Your task to perform on an android device: Check the weather Image 0: 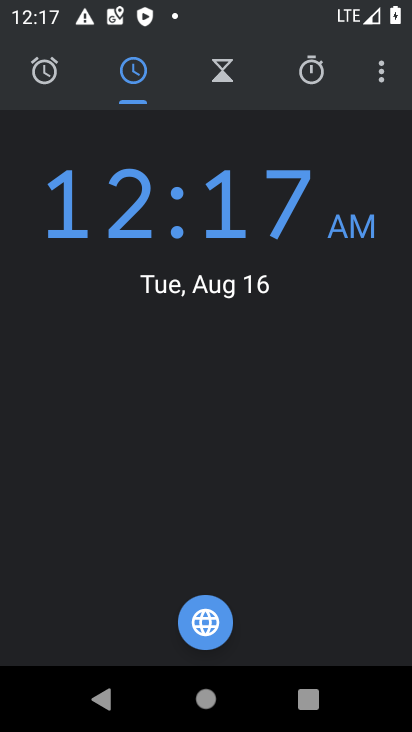
Step 0: press home button
Your task to perform on an android device: Check the weather Image 1: 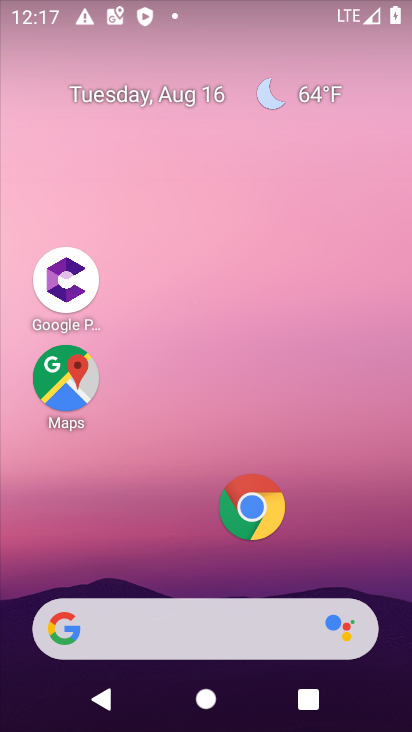
Step 1: click (149, 622)
Your task to perform on an android device: Check the weather Image 2: 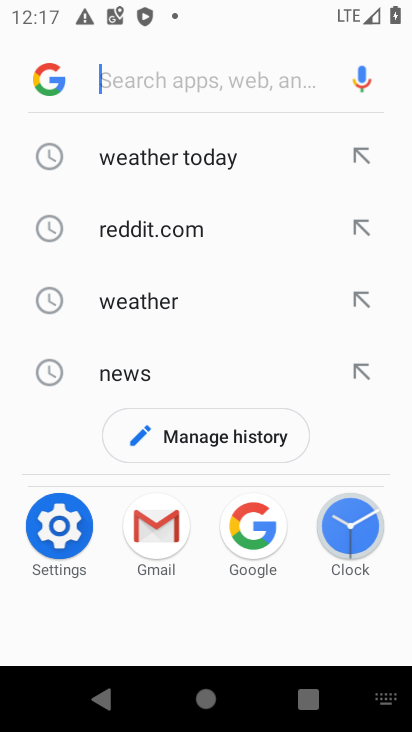
Step 2: click (139, 294)
Your task to perform on an android device: Check the weather Image 3: 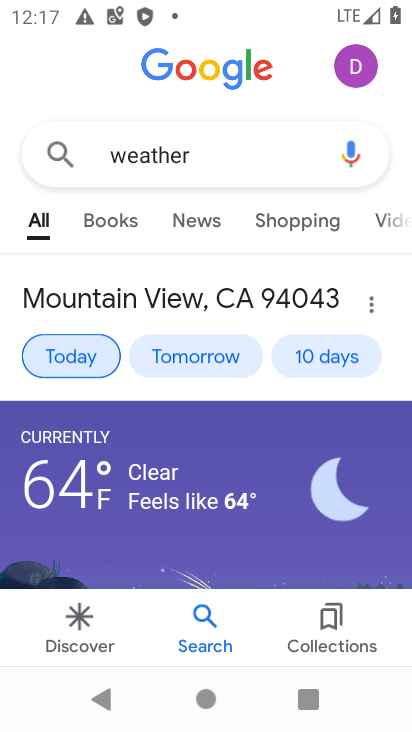
Step 3: task complete